Your task to perform on an android device: Search for pizza restaurants on Maps Image 0: 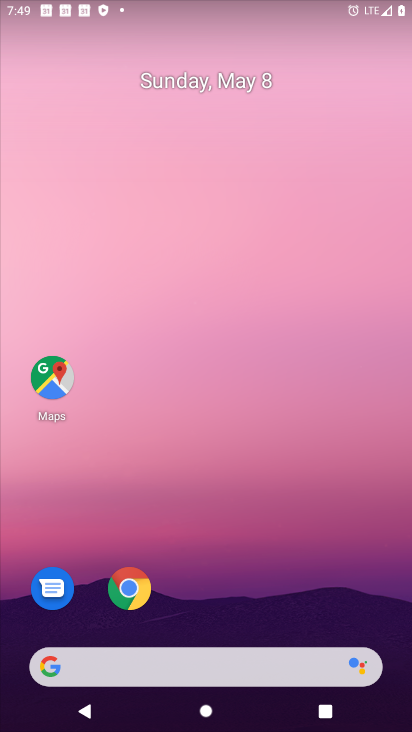
Step 0: drag from (185, 671) to (332, 121)
Your task to perform on an android device: Search for pizza restaurants on Maps Image 1: 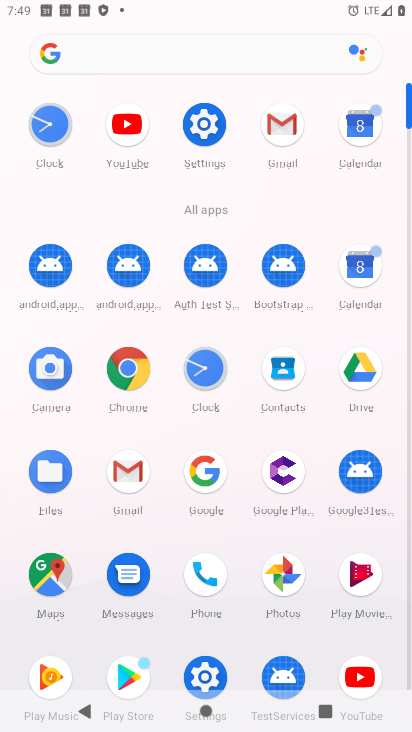
Step 1: click (41, 582)
Your task to perform on an android device: Search for pizza restaurants on Maps Image 2: 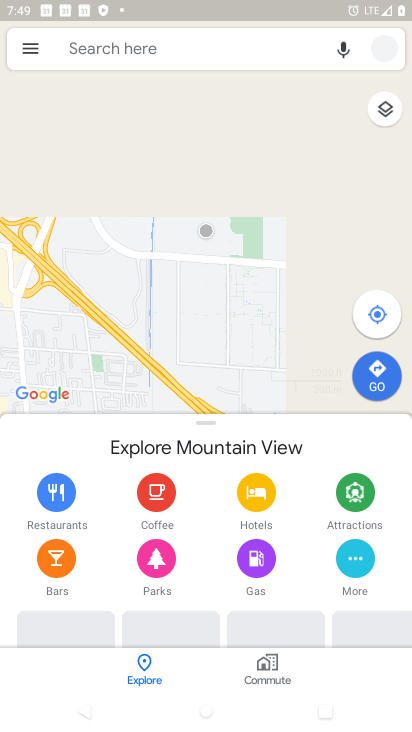
Step 2: click (209, 45)
Your task to perform on an android device: Search for pizza restaurants on Maps Image 3: 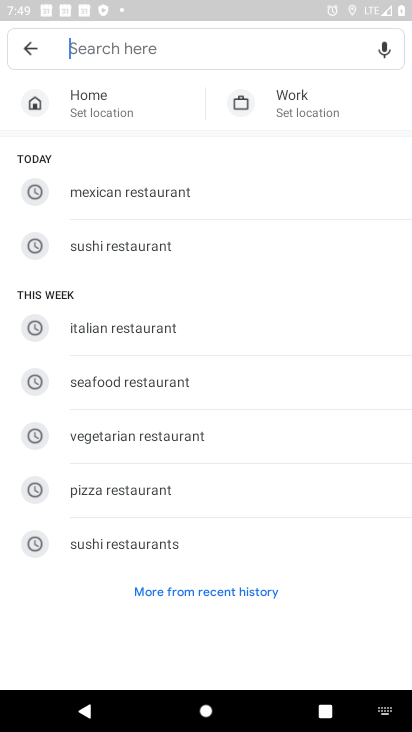
Step 3: click (117, 491)
Your task to perform on an android device: Search for pizza restaurants on Maps Image 4: 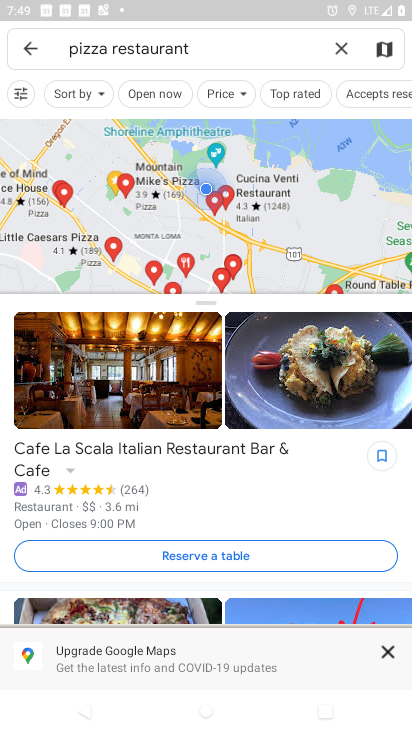
Step 4: task complete